Your task to perform on an android device: Set an alarm for 12pm Image 0: 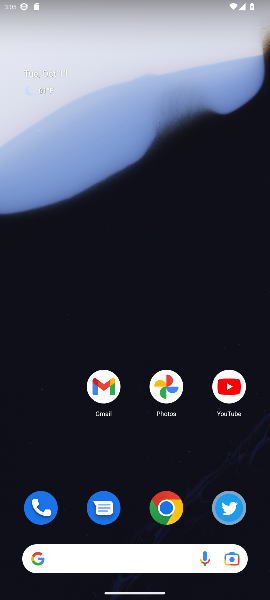
Step 0: drag from (164, 477) to (107, 263)
Your task to perform on an android device: Set an alarm for 12pm Image 1: 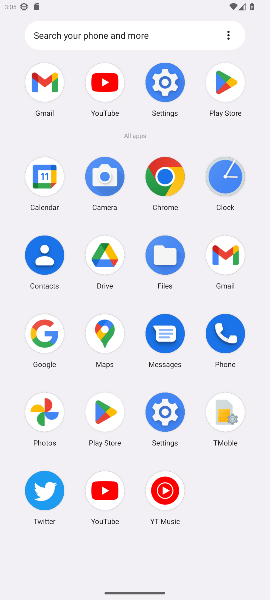
Step 1: click (224, 185)
Your task to perform on an android device: Set an alarm for 12pm Image 2: 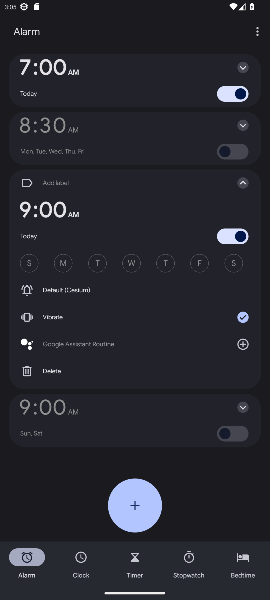
Step 2: click (138, 506)
Your task to perform on an android device: Set an alarm for 12pm Image 3: 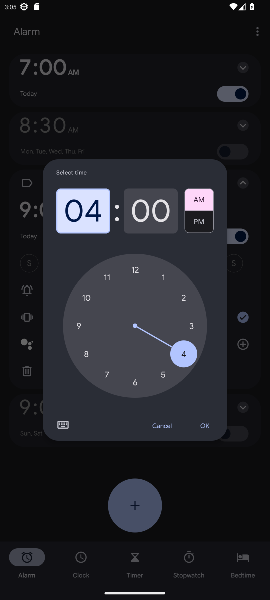
Step 3: click (203, 228)
Your task to perform on an android device: Set an alarm for 12pm Image 4: 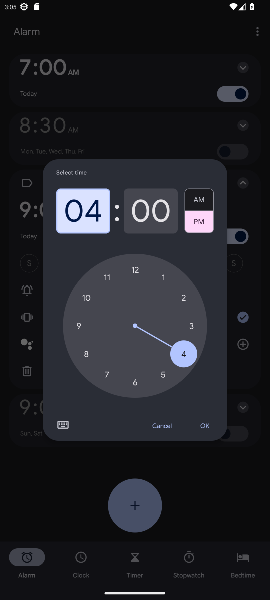
Step 4: click (138, 267)
Your task to perform on an android device: Set an alarm for 12pm Image 5: 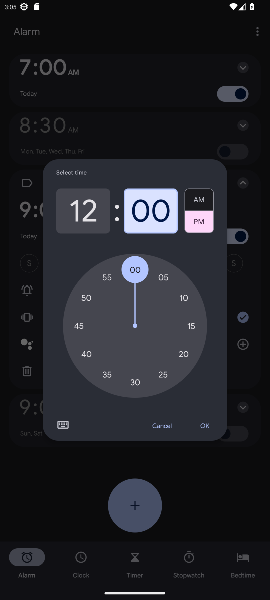
Step 5: click (206, 427)
Your task to perform on an android device: Set an alarm for 12pm Image 6: 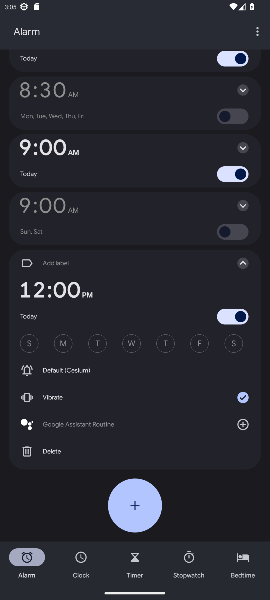
Step 6: task complete